Your task to perform on an android device: turn smart compose on in the gmail app Image 0: 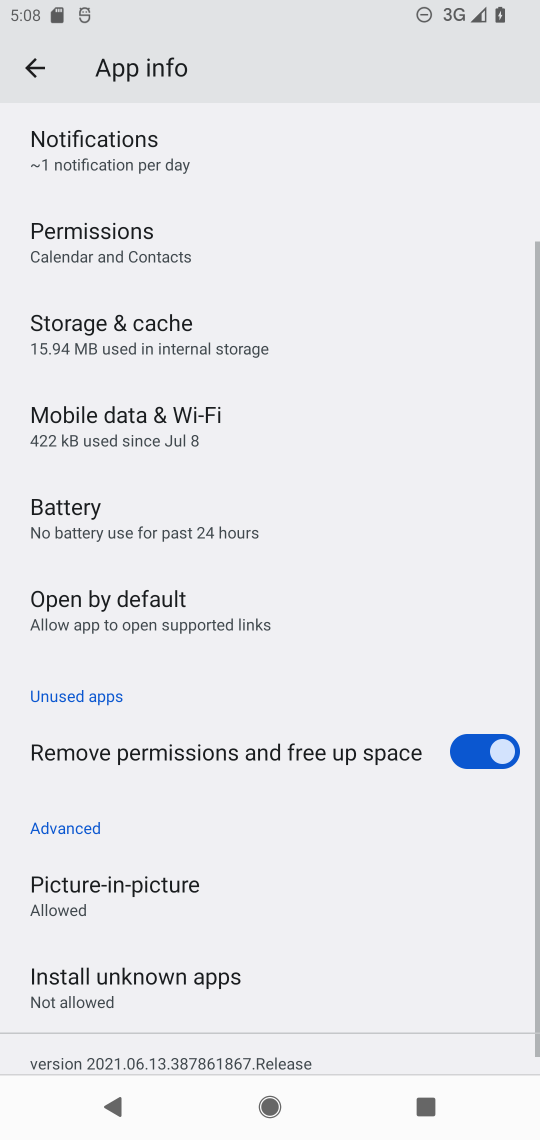
Step 0: press home button
Your task to perform on an android device: turn smart compose on in the gmail app Image 1: 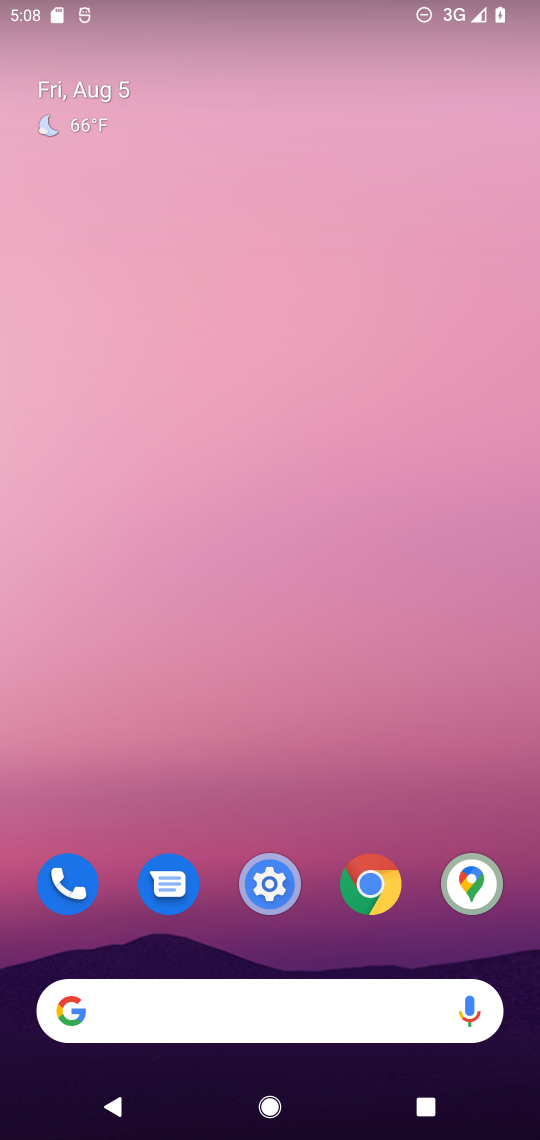
Step 1: drag from (504, 1026) to (329, 119)
Your task to perform on an android device: turn smart compose on in the gmail app Image 2: 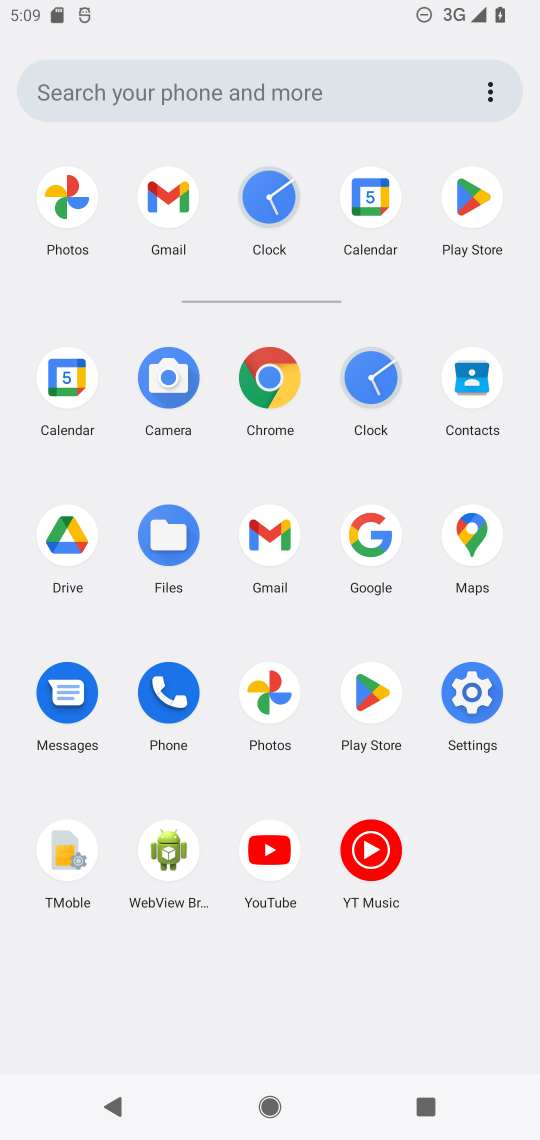
Step 2: click (277, 556)
Your task to perform on an android device: turn smart compose on in the gmail app Image 3: 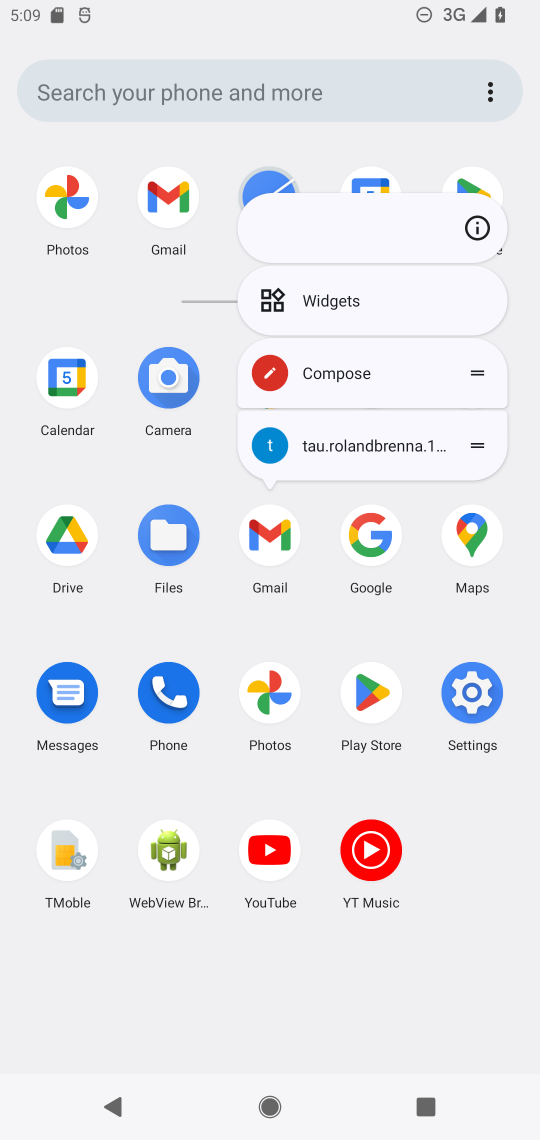
Step 3: click (277, 556)
Your task to perform on an android device: turn smart compose on in the gmail app Image 4: 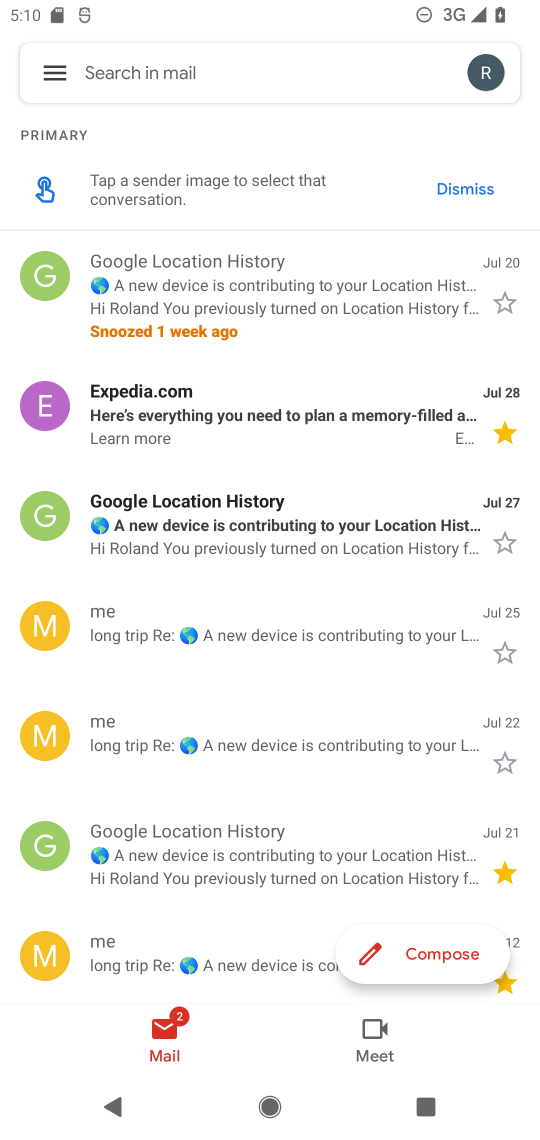
Step 4: click (40, 67)
Your task to perform on an android device: turn smart compose on in the gmail app Image 5: 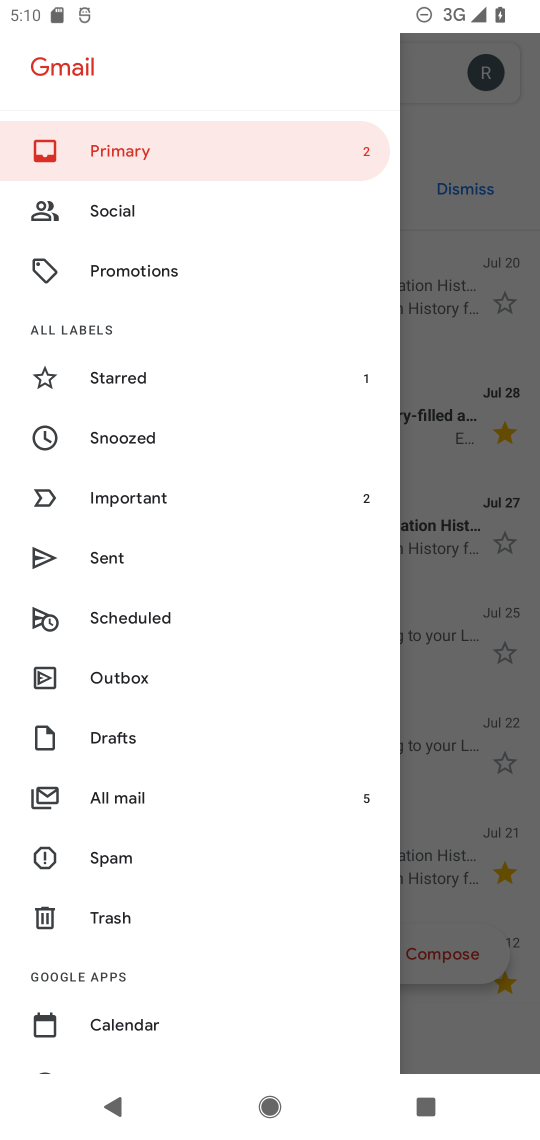
Step 5: drag from (131, 976) to (142, 146)
Your task to perform on an android device: turn smart compose on in the gmail app Image 6: 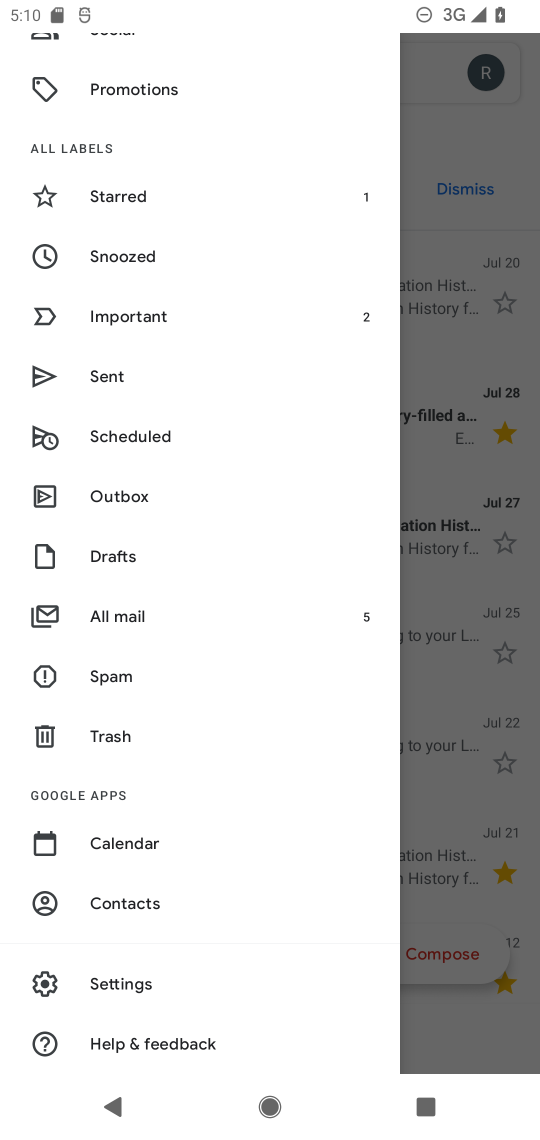
Step 6: click (138, 1000)
Your task to perform on an android device: turn smart compose on in the gmail app Image 7: 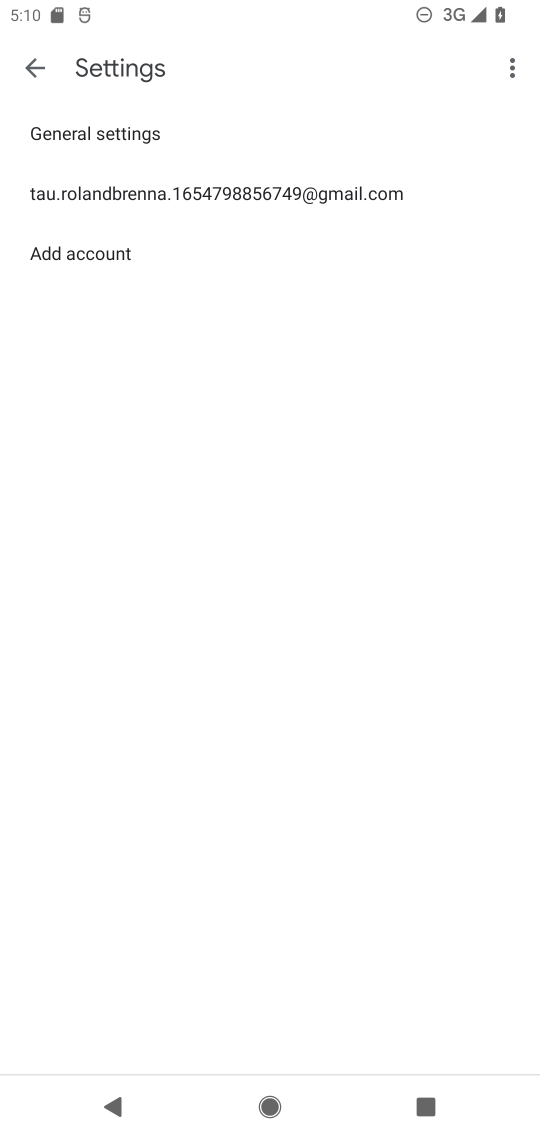
Step 7: click (266, 203)
Your task to perform on an android device: turn smart compose on in the gmail app Image 8: 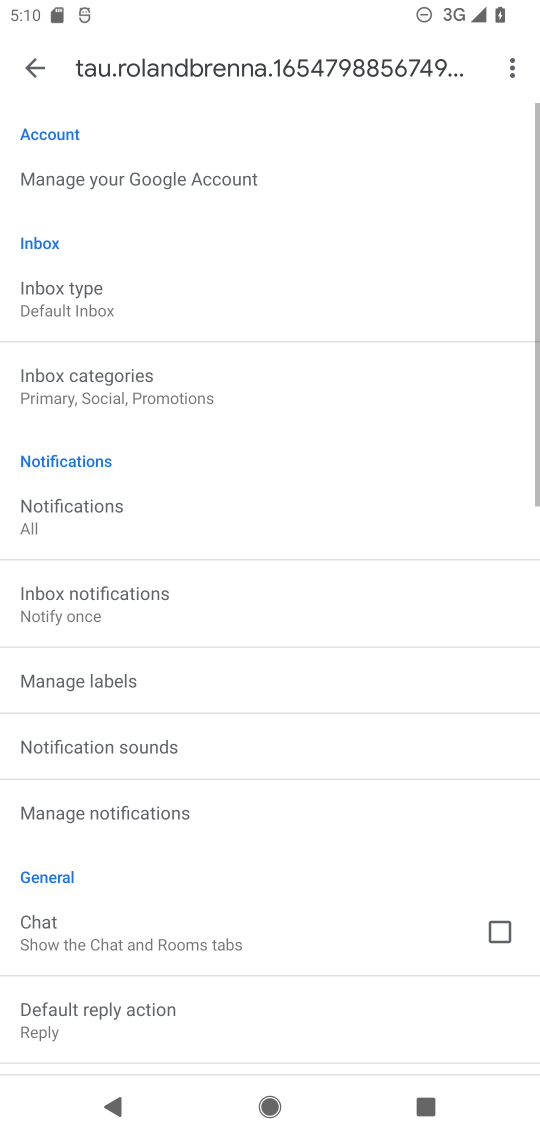
Step 8: task complete